Your task to perform on an android device: Go to internet settings Image 0: 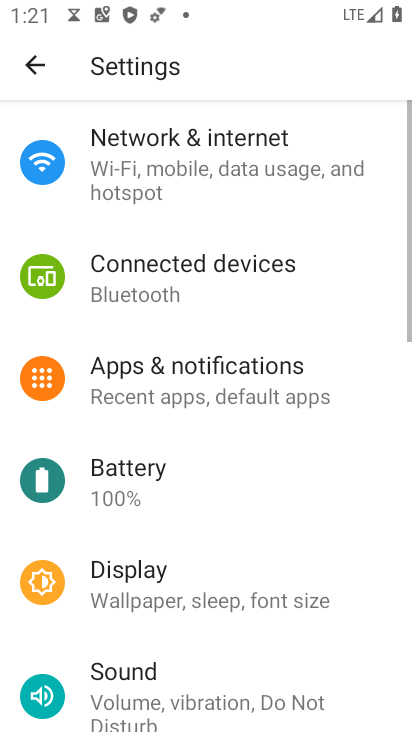
Step 0: press home button
Your task to perform on an android device: Go to internet settings Image 1: 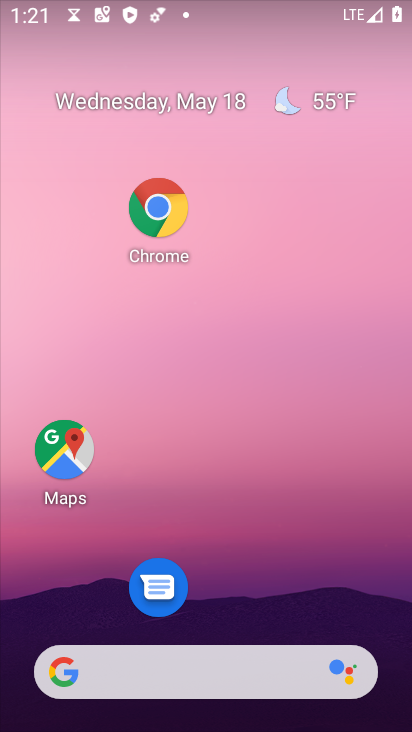
Step 1: drag from (240, 604) to (228, 207)
Your task to perform on an android device: Go to internet settings Image 2: 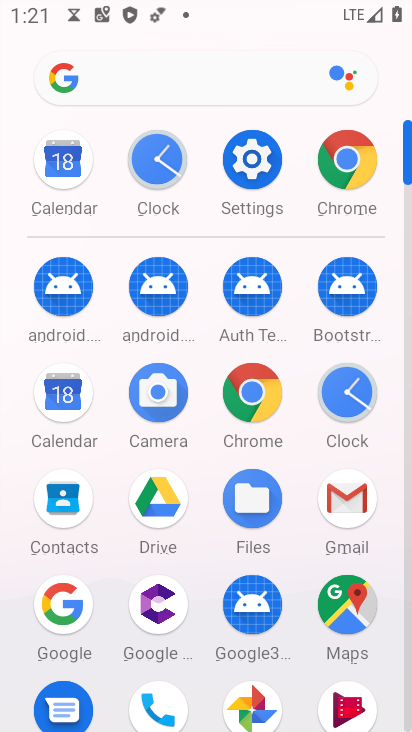
Step 2: click (241, 163)
Your task to perform on an android device: Go to internet settings Image 3: 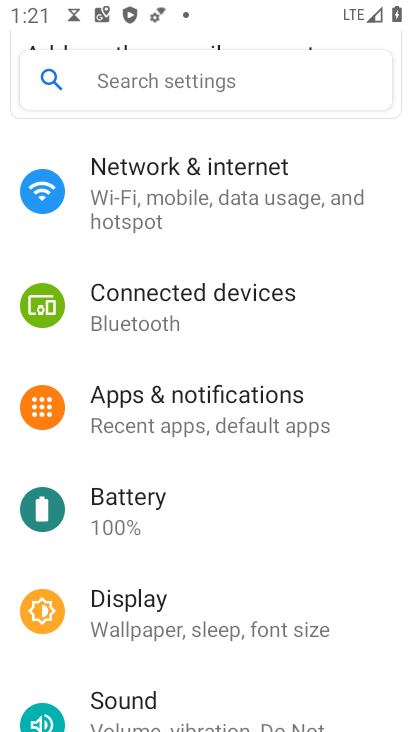
Step 3: click (210, 212)
Your task to perform on an android device: Go to internet settings Image 4: 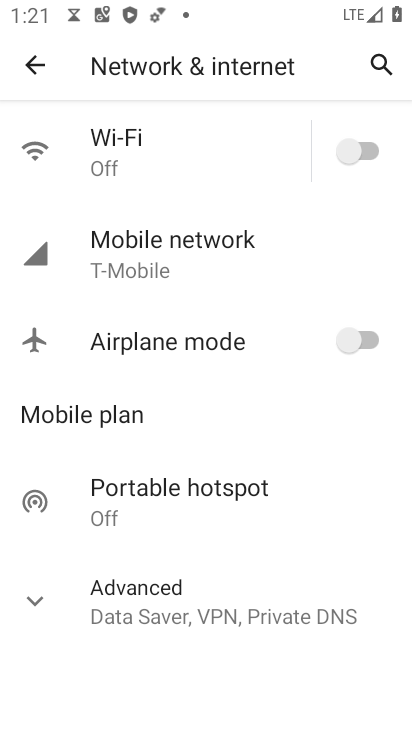
Step 4: task complete